Your task to perform on an android device: open chrome and create a bookmark for the current page Image 0: 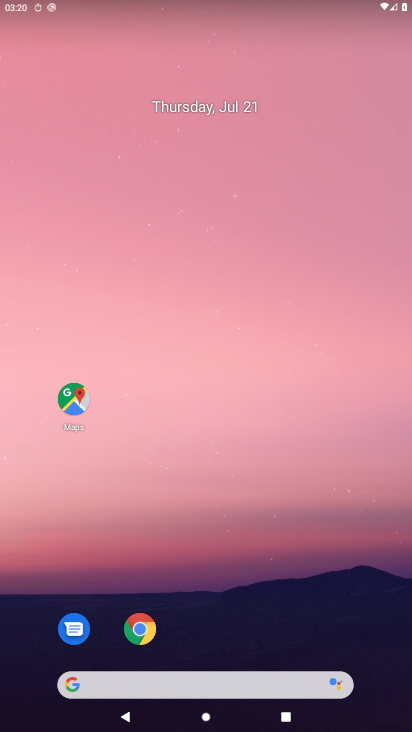
Step 0: drag from (207, 315) to (243, 242)
Your task to perform on an android device: open chrome and create a bookmark for the current page Image 1: 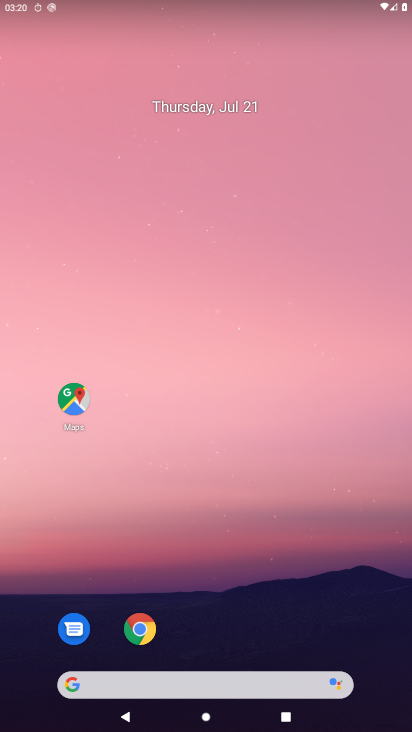
Step 1: drag from (35, 666) to (299, 179)
Your task to perform on an android device: open chrome and create a bookmark for the current page Image 2: 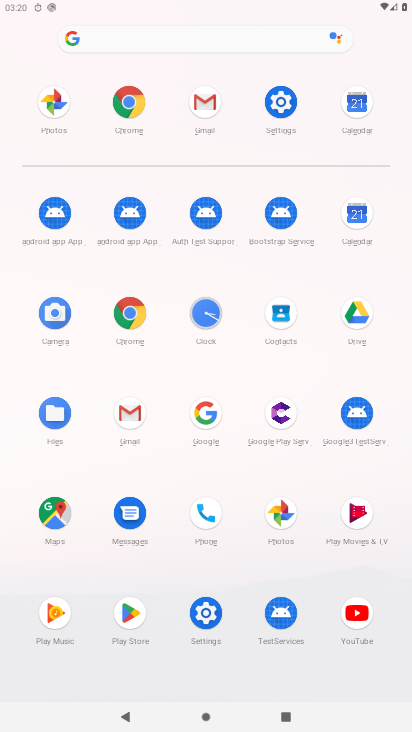
Step 2: click (140, 103)
Your task to perform on an android device: open chrome and create a bookmark for the current page Image 3: 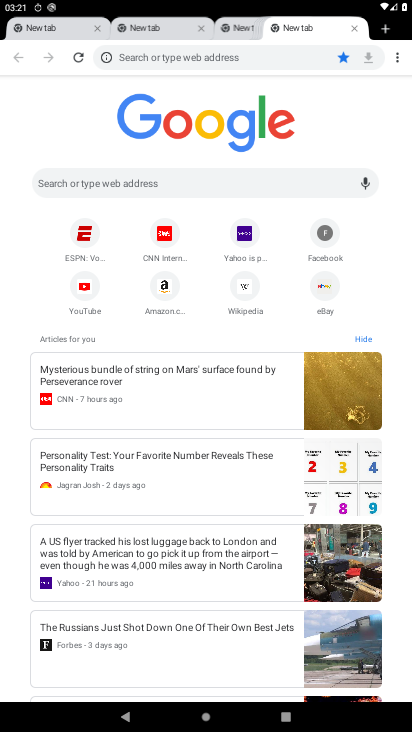
Step 3: click (393, 57)
Your task to perform on an android device: open chrome and create a bookmark for the current page Image 4: 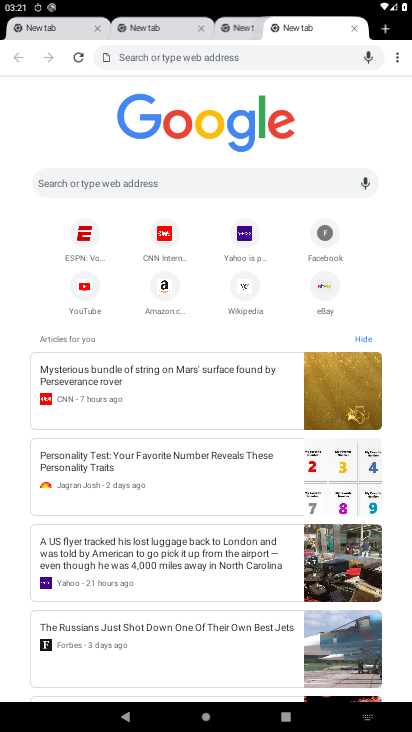
Step 4: click (393, 57)
Your task to perform on an android device: open chrome and create a bookmark for the current page Image 5: 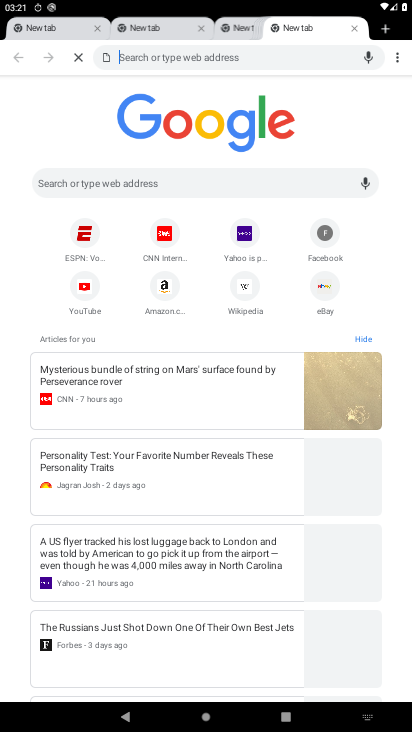
Step 5: click (392, 58)
Your task to perform on an android device: open chrome and create a bookmark for the current page Image 6: 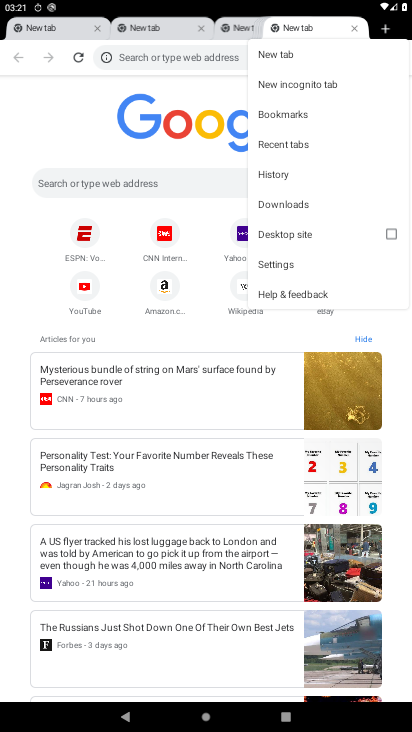
Step 6: click (298, 112)
Your task to perform on an android device: open chrome and create a bookmark for the current page Image 7: 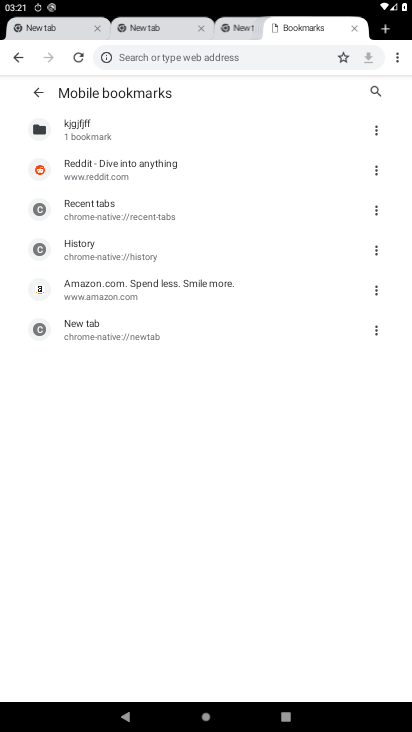
Step 7: click (339, 59)
Your task to perform on an android device: open chrome and create a bookmark for the current page Image 8: 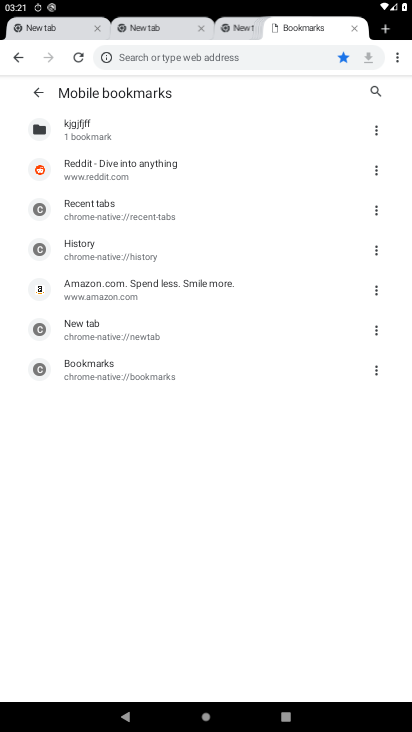
Step 8: task complete